Your task to perform on an android device: Turn off the flashlight Image 0: 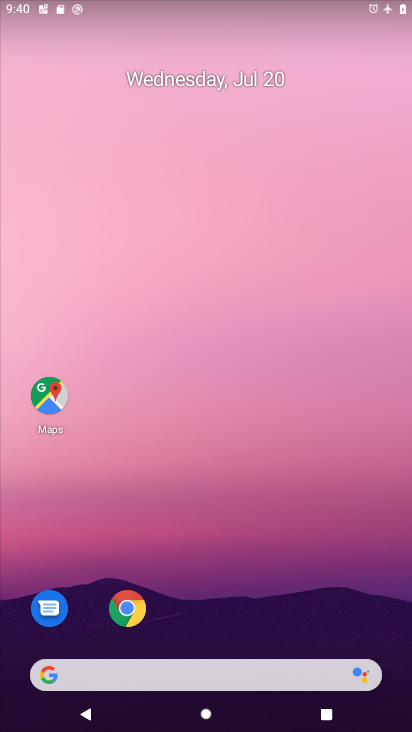
Step 0: drag from (284, 550) to (308, 0)
Your task to perform on an android device: Turn off the flashlight Image 1: 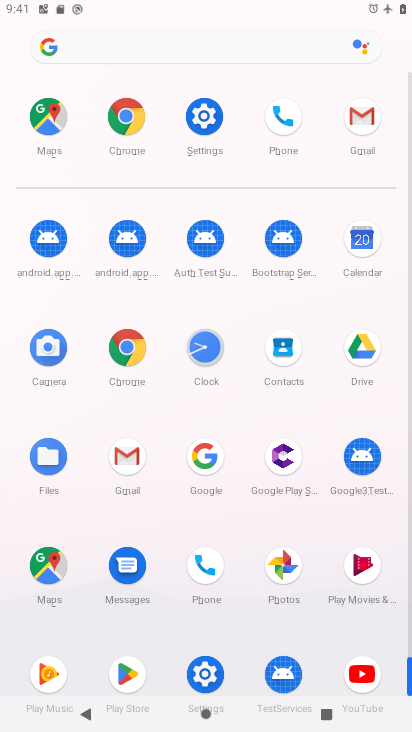
Step 1: click (214, 92)
Your task to perform on an android device: Turn off the flashlight Image 2: 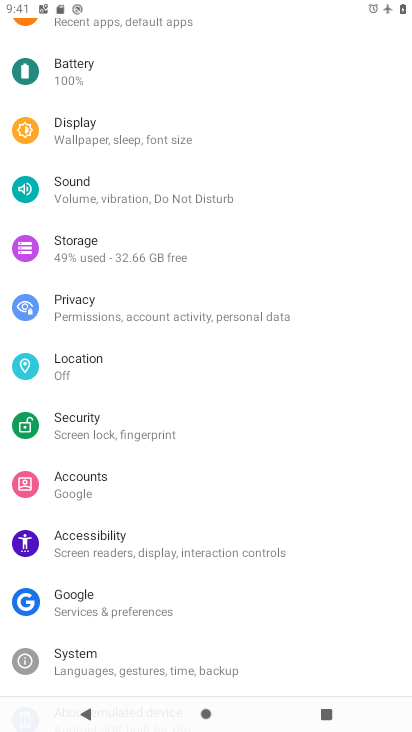
Step 2: task complete